Your task to perform on an android device: add a contact in the contacts app Image 0: 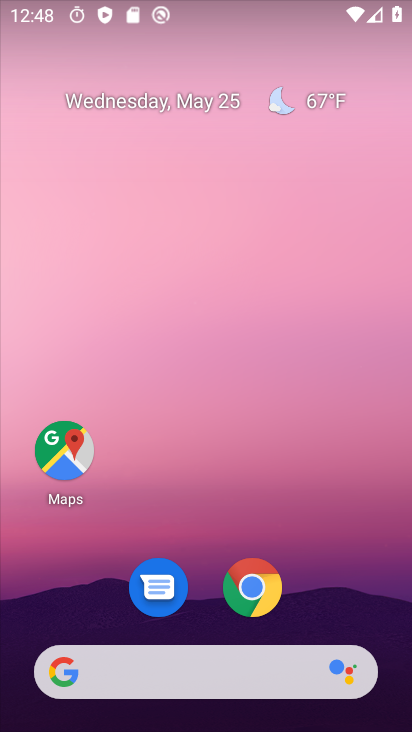
Step 0: drag from (215, 709) to (225, 25)
Your task to perform on an android device: add a contact in the contacts app Image 1: 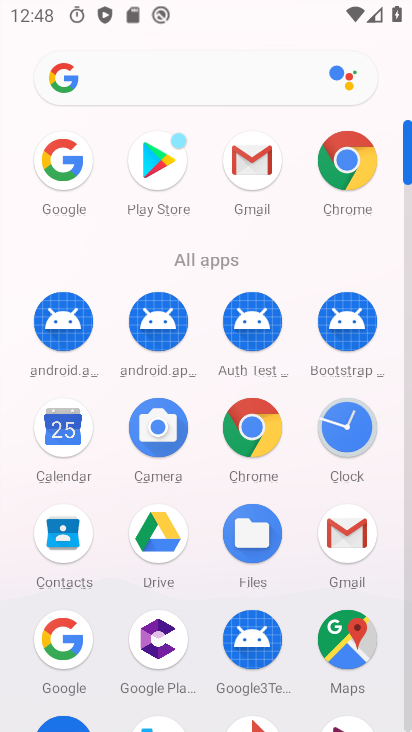
Step 1: click (58, 538)
Your task to perform on an android device: add a contact in the contacts app Image 2: 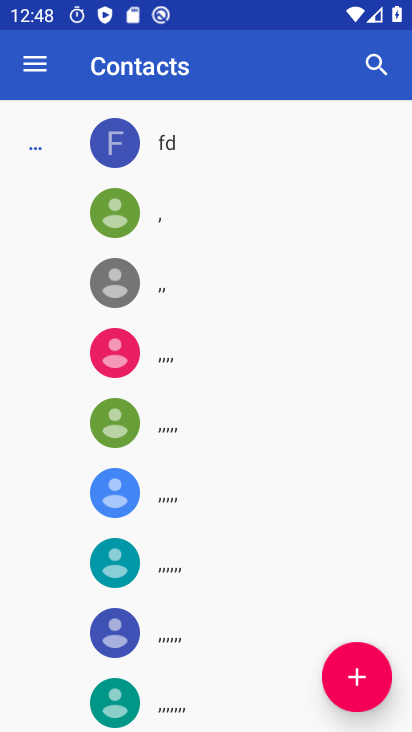
Step 2: click (355, 675)
Your task to perform on an android device: add a contact in the contacts app Image 3: 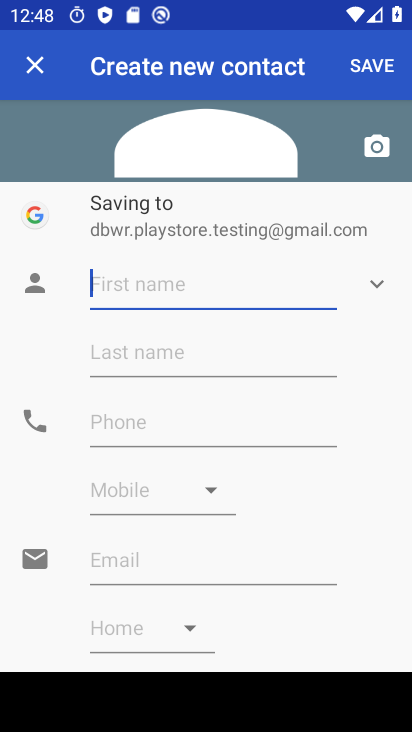
Step 3: type "zind"
Your task to perform on an android device: add a contact in the contacts app Image 4: 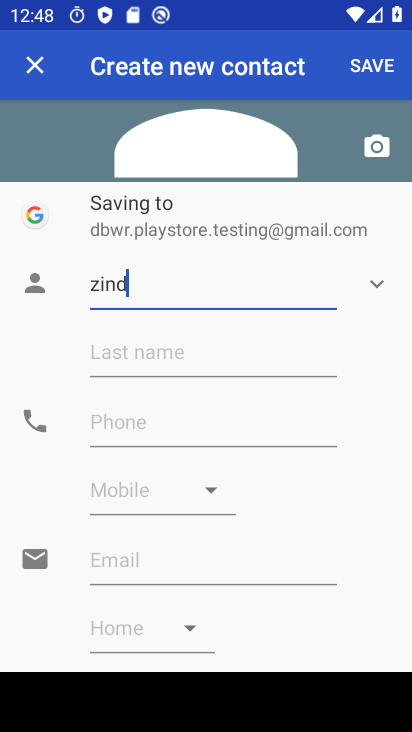
Step 4: click (212, 423)
Your task to perform on an android device: add a contact in the contacts app Image 5: 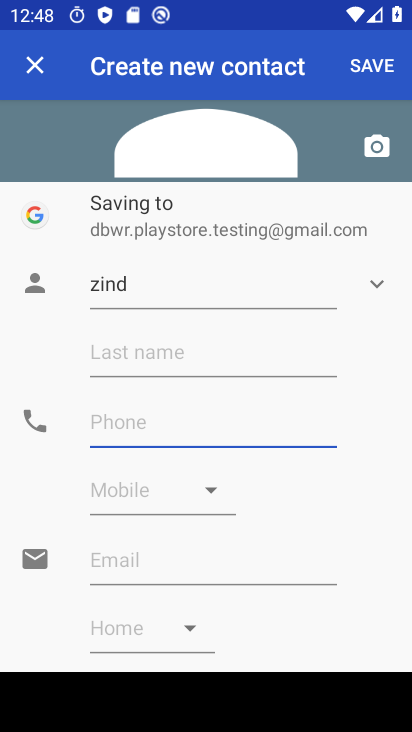
Step 5: type "87654"
Your task to perform on an android device: add a contact in the contacts app Image 6: 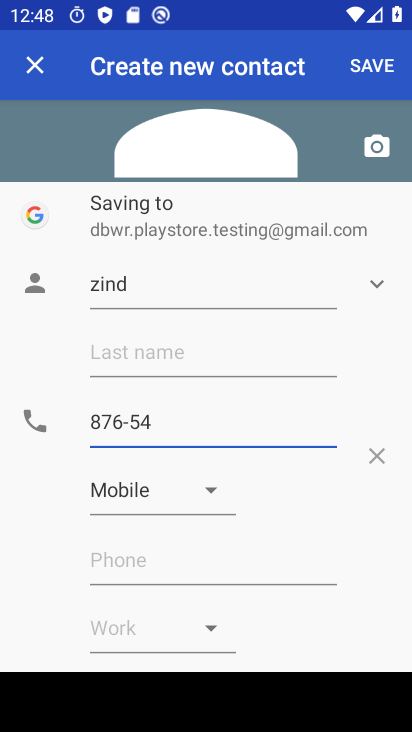
Step 6: click (362, 64)
Your task to perform on an android device: add a contact in the contacts app Image 7: 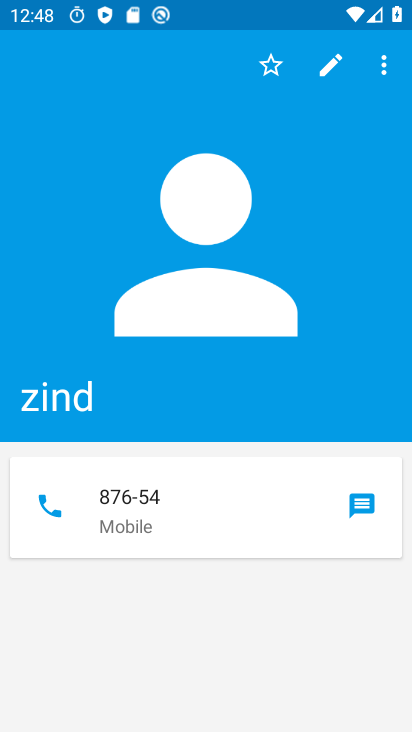
Step 7: task complete